Your task to perform on an android device: Open the calendar and show me this week's events? Image 0: 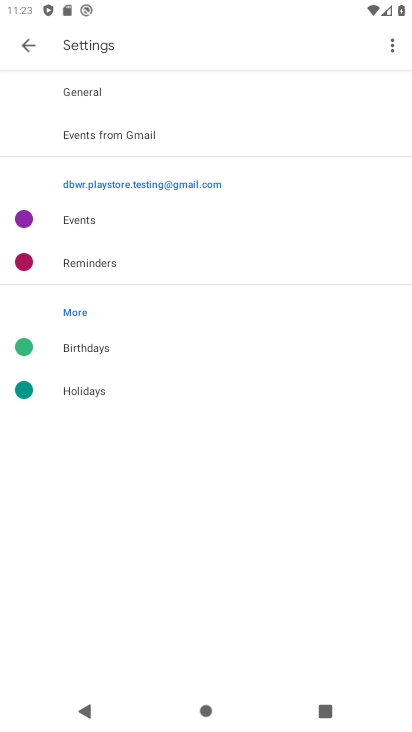
Step 0: press home button
Your task to perform on an android device: Open the calendar and show me this week's events? Image 1: 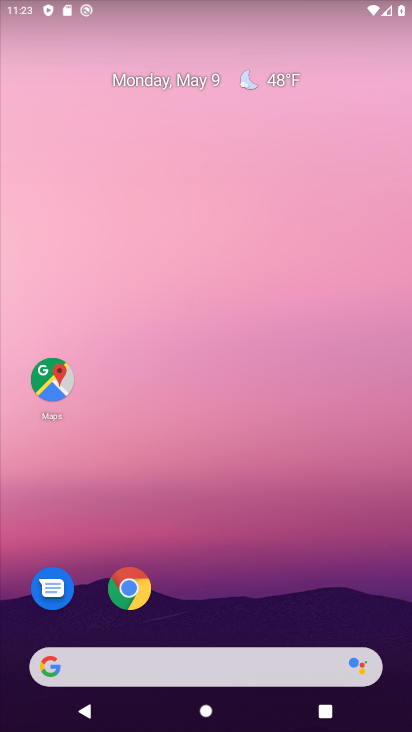
Step 1: drag from (252, 588) to (291, 133)
Your task to perform on an android device: Open the calendar and show me this week's events? Image 2: 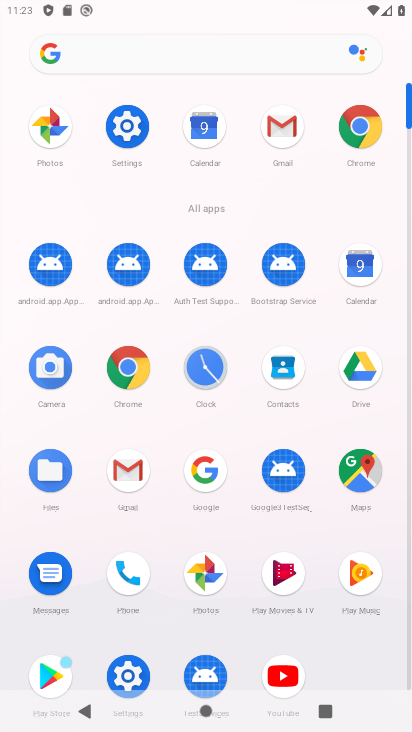
Step 2: click (334, 239)
Your task to perform on an android device: Open the calendar and show me this week's events? Image 3: 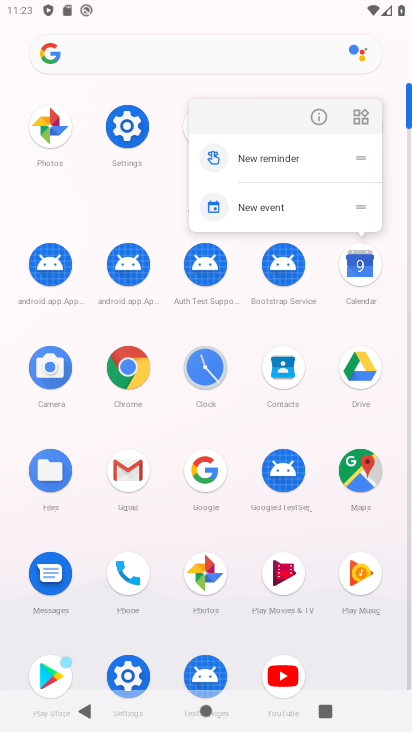
Step 3: click (351, 266)
Your task to perform on an android device: Open the calendar and show me this week's events? Image 4: 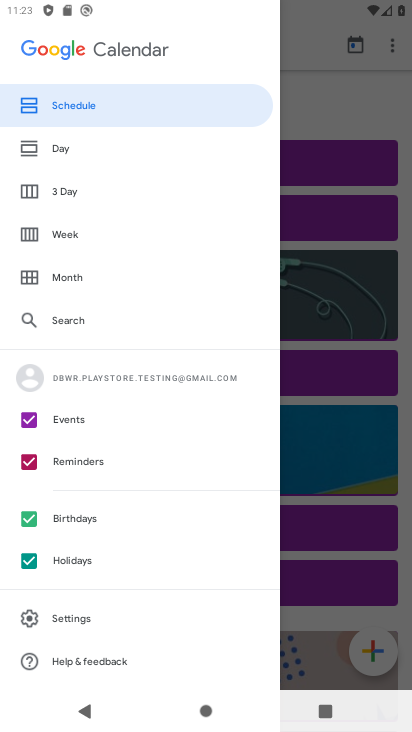
Step 4: click (71, 283)
Your task to perform on an android device: Open the calendar and show me this week's events? Image 5: 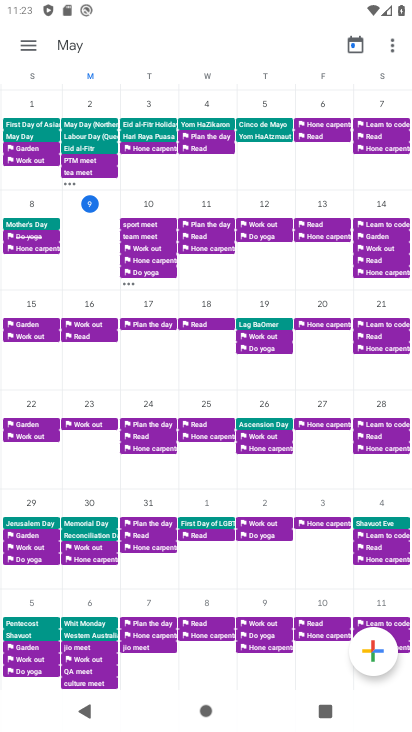
Step 5: click (212, 234)
Your task to perform on an android device: Open the calendar and show me this week's events? Image 6: 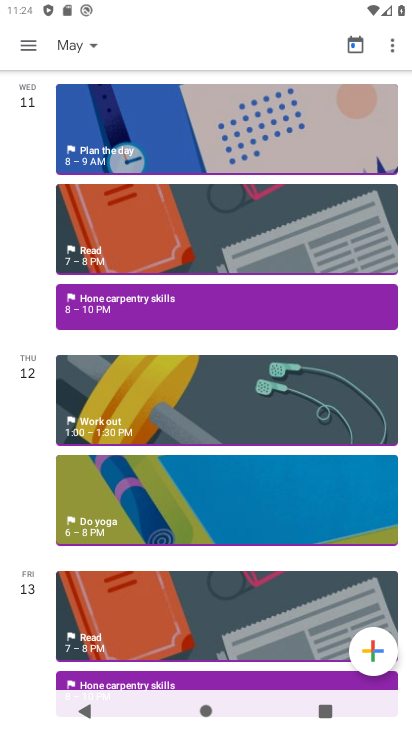
Step 6: task complete